Your task to perform on an android device: turn off notifications settings in the gmail app Image 0: 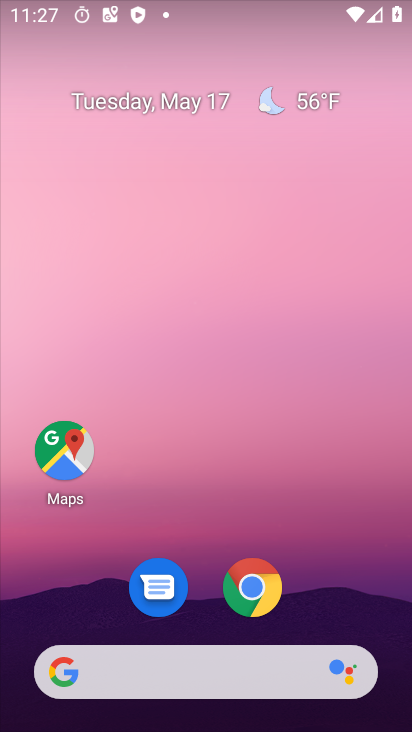
Step 0: drag from (350, 576) to (227, 191)
Your task to perform on an android device: turn off notifications settings in the gmail app Image 1: 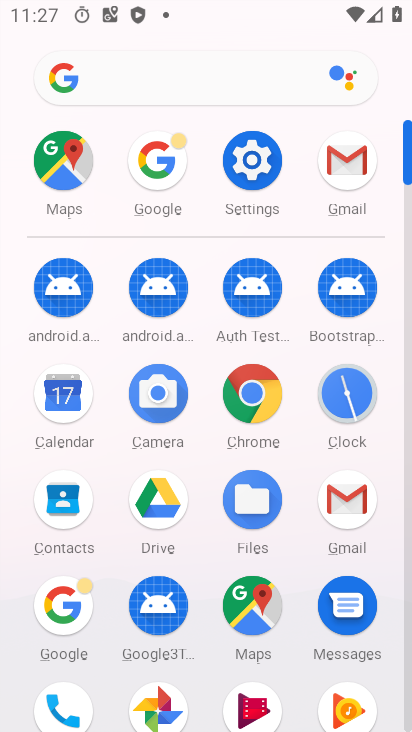
Step 1: click (350, 160)
Your task to perform on an android device: turn off notifications settings in the gmail app Image 2: 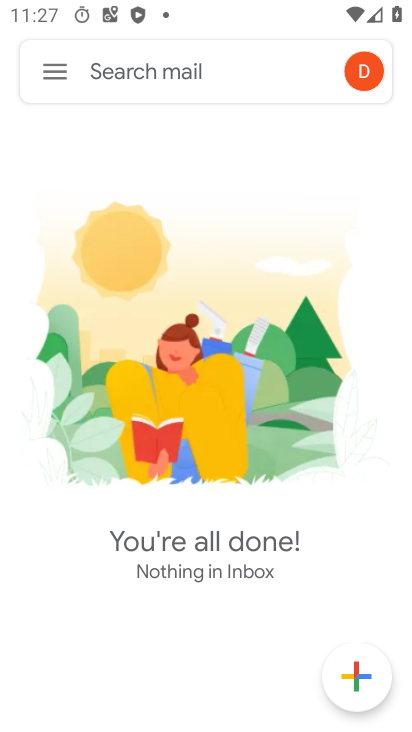
Step 2: click (46, 67)
Your task to perform on an android device: turn off notifications settings in the gmail app Image 3: 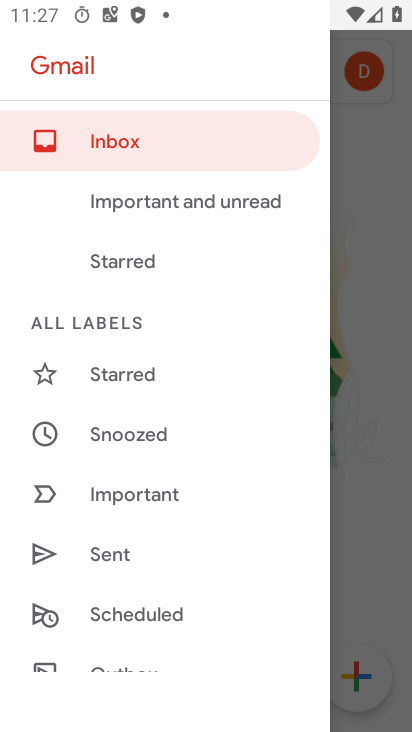
Step 3: drag from (133, 473) to (158, 409)
Your task to perform on an android device: turn off notifications settings in the gmail app Image 4: 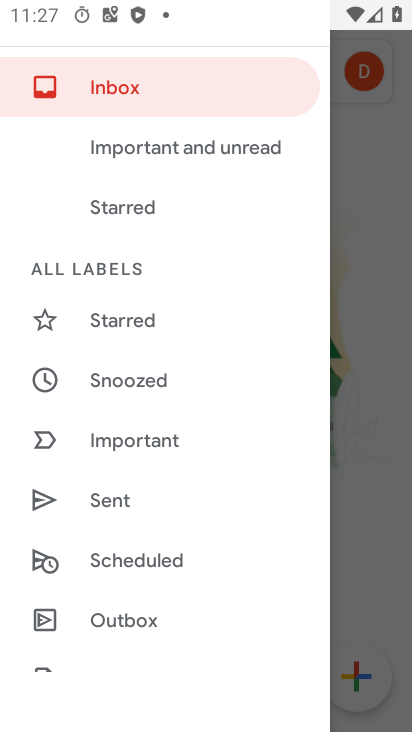
Step 4: drag from (154, 524) to (188, 457)
Your task to perform on an android device: turn off notifications settings in the gmail app Image 5: 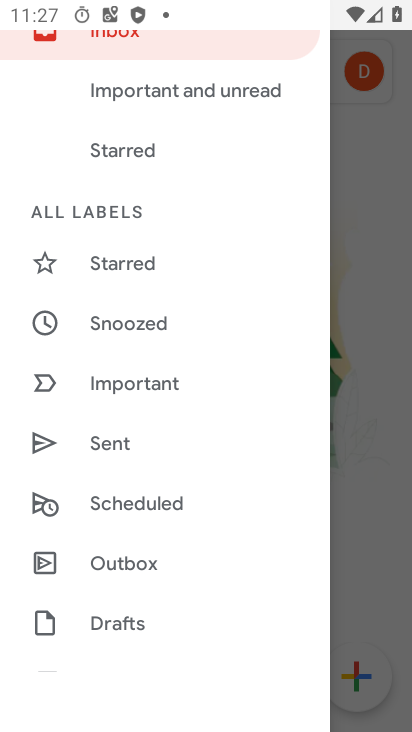
Step 5: drag from (137, 525) to (183, 452)
Your task to perform on an android device: turn off notifications settings in the gmail app Image 6: 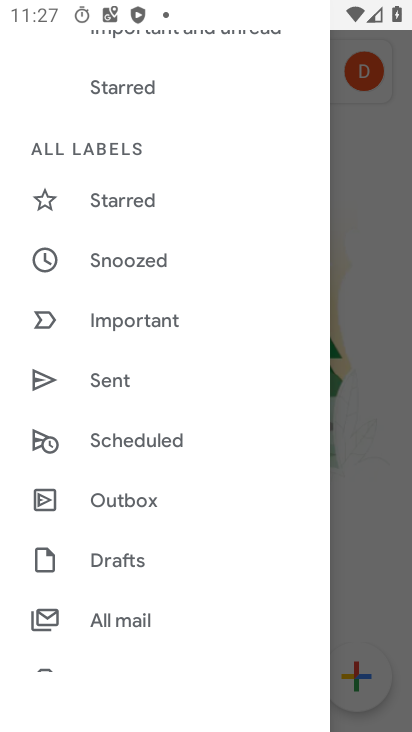
Step 6: drag from (129, 538) to (159, 458)
Your task to perform on an android device: turn off notifications settings in the gmail app Image 7: 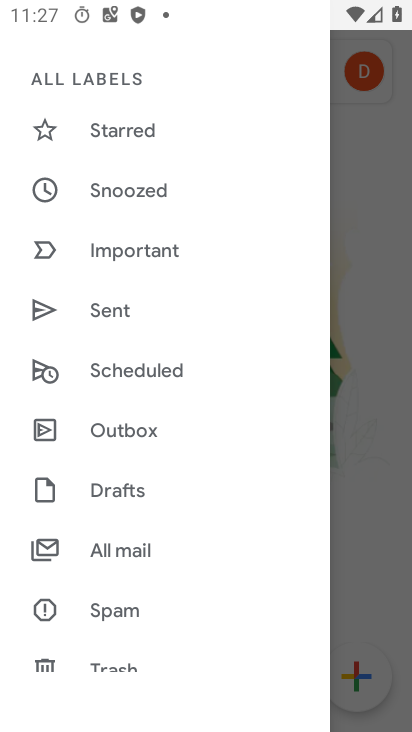
Step 7: drag from (121, 591) to (163, 503)
Your task to perform on an android device: turn off notifications settings in the gmail app Image 8: 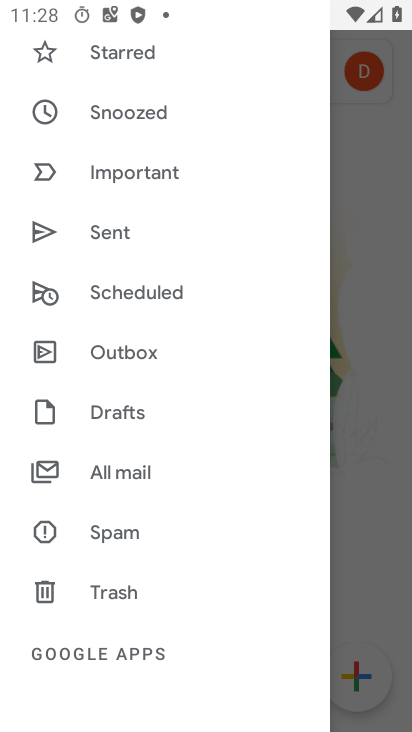
Step 8: drag from (103, 627) to (181, 516)
Your task to perform on an android device: turn off notifications settings in the gmail app Image 9: 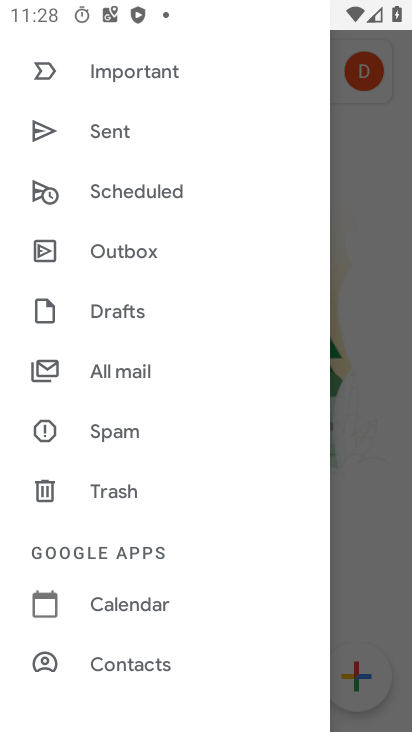
Step 9: drag from (97, 622) to (183, 515)
Your task to perform on an android device: turn off notifications settings in the gmail app Image 10: 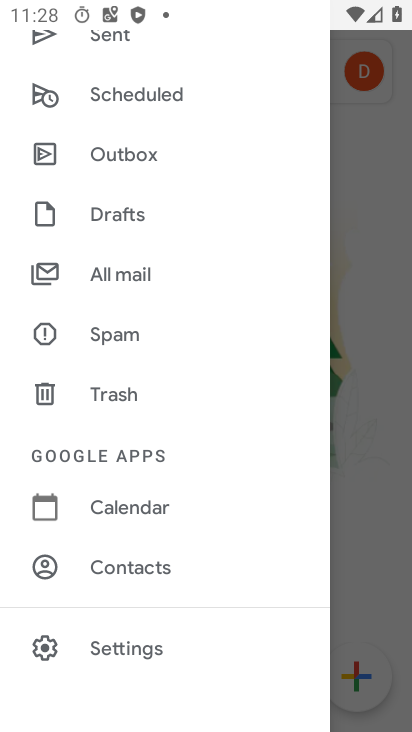
Step 10: click (127, 647)
Your task to perform on an android device: turn off notifications settings in the gmail app Image 11: 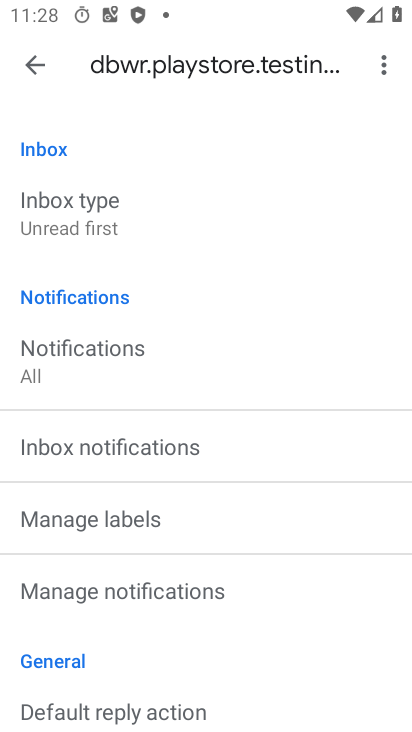
Step 11: click (145, 594)
Your task to perform on an android device: turn off notifications settings in the gmail app Image 12: 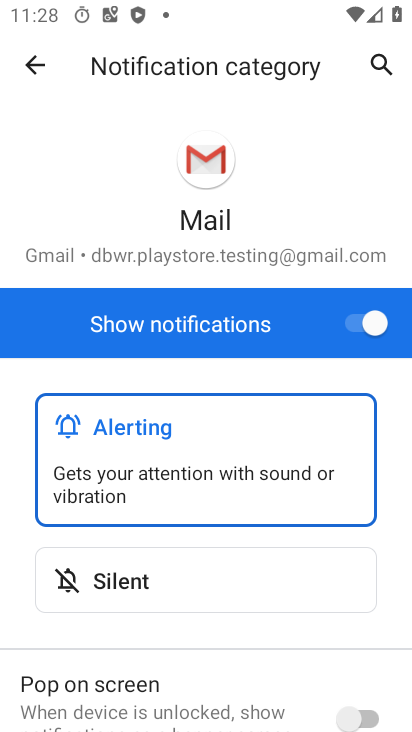
Step 12: click (370, 325)
Your task to perform on an android device: turn off notifications settings in the gmail app Image 13: 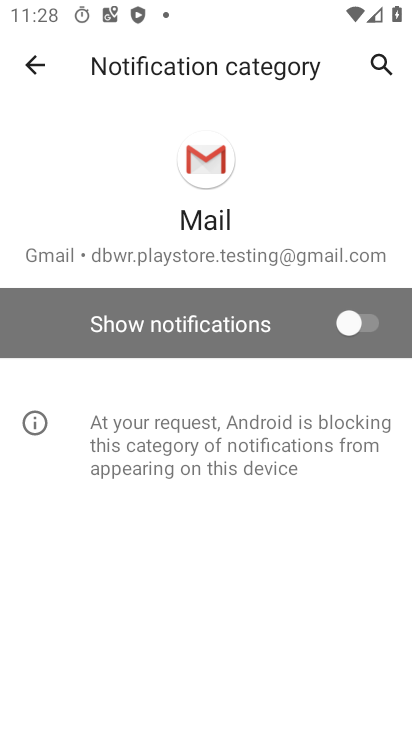
Step 13: task complete